Your task to perform on an android device: change the clock style Image 0: 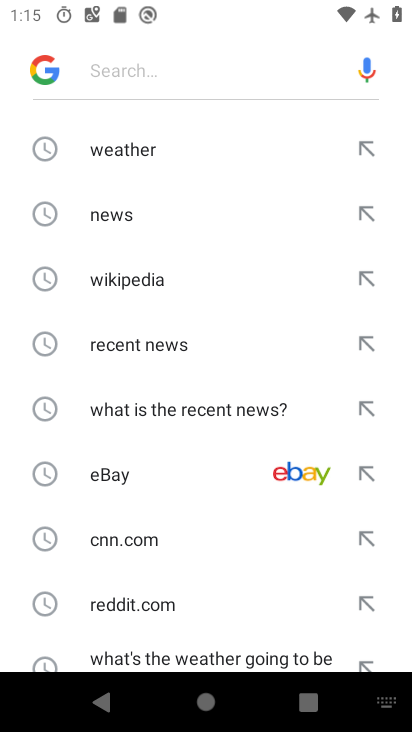
Step 0: press home button
Your task to perform on an android device: change the clock style Image 1: 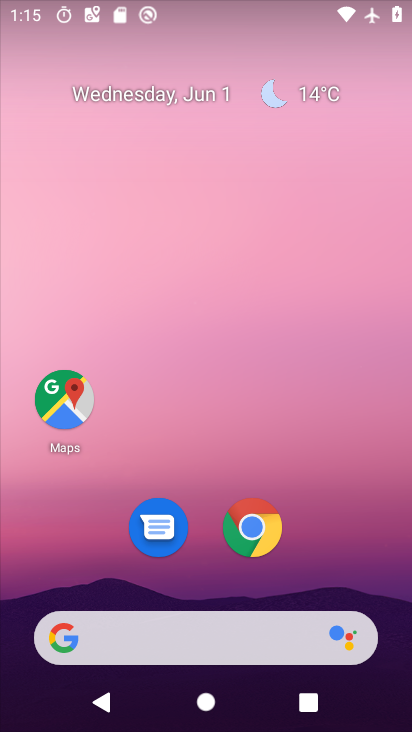
Step 1: drag from (329, 583) to (325, 34)
Your task to perform on an android device: change the clock style Image 2: 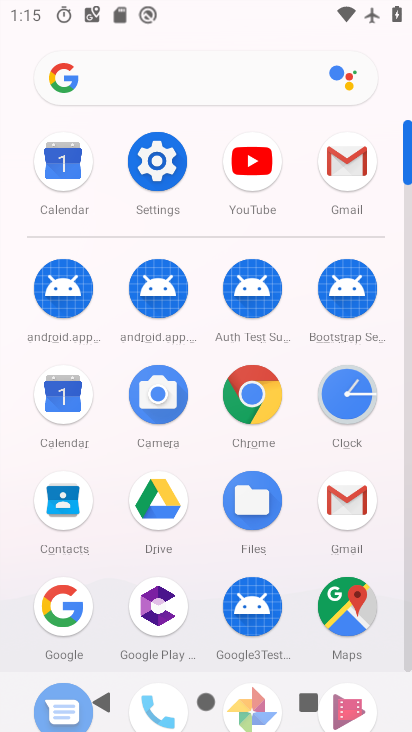
Step 2: click (346, 387)
Your task to perform on an android device: change the clock style Image 3: 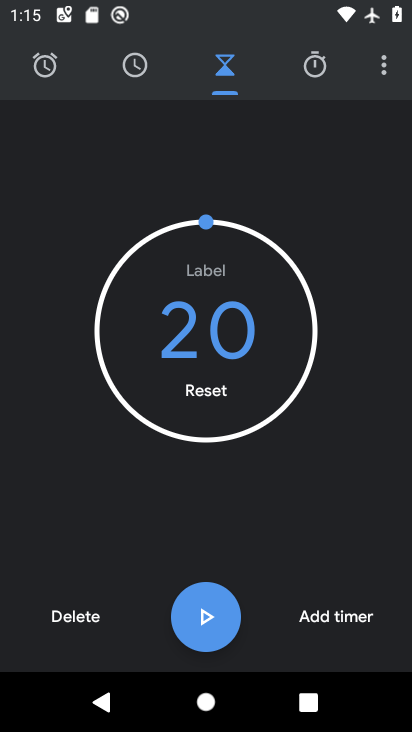
Step 3: click (385, 77)
Your task to perform on an android device: change the clock style Image 4: 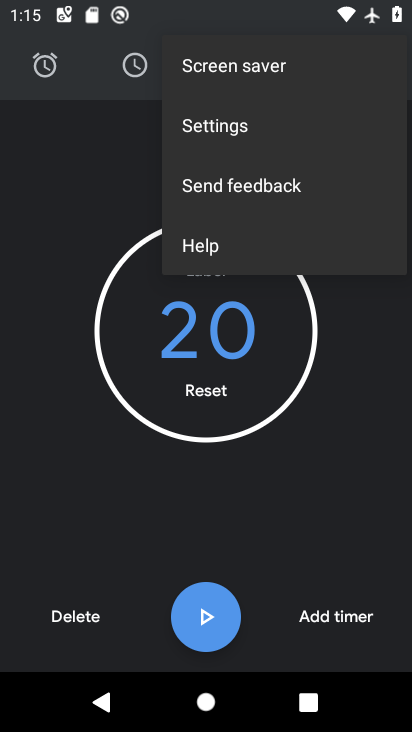
Step 4: click (223, 123)
Your task to perform on an android device: change the clock style Image 5: 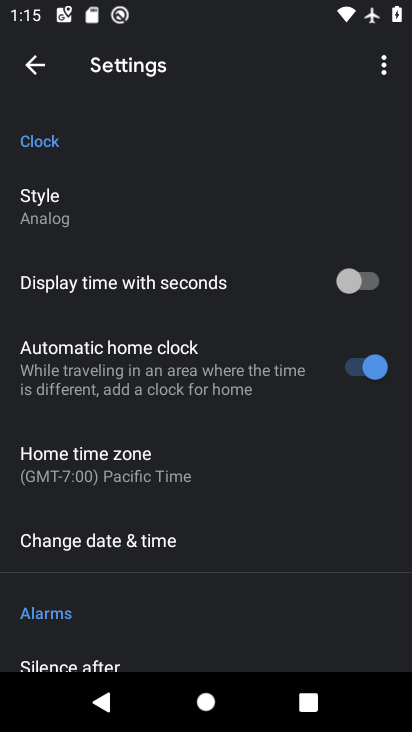
Step 5: click (45, 211)
Your task to perform on an android device: change the clock style Image 6: 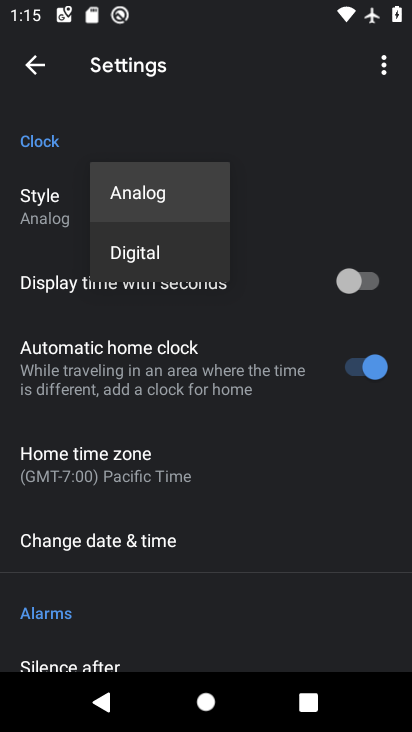
Step 6: click (120, 250)
Your task to perform on an android device: change the clock style Image 7: 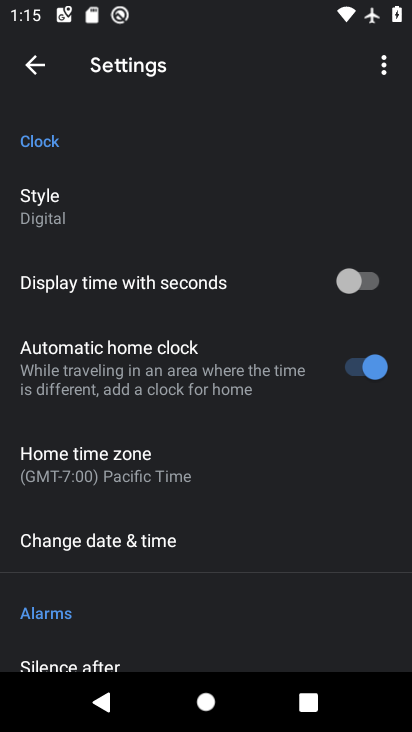
Step 7: task complete